Your task to perform on an android device: What is the recent news? Image 0: 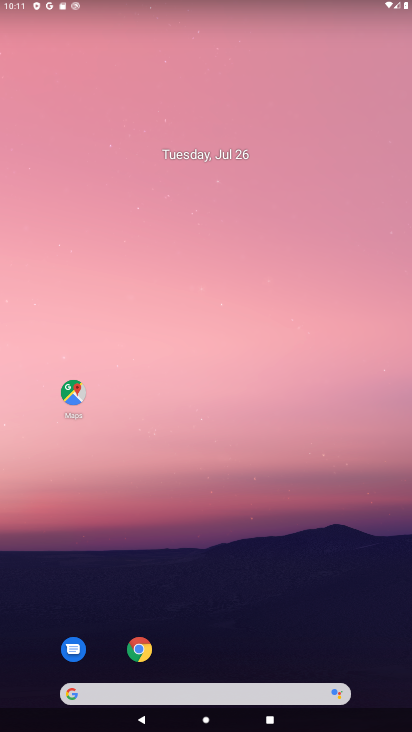
Step 0: drag from (198, 686) to (267, 24)
Your task to perform on an android device: What is the recent news? Image 1: 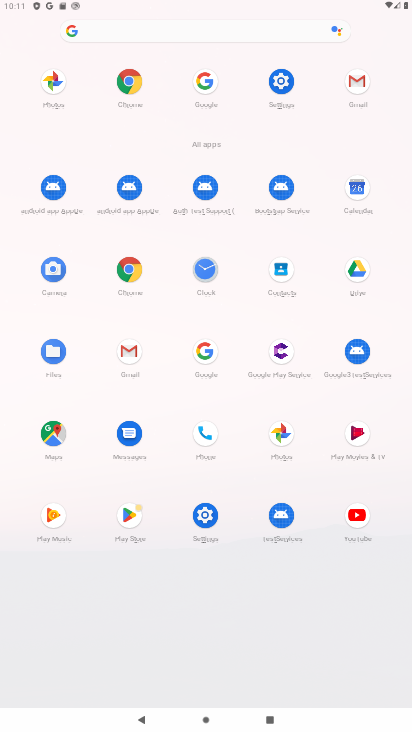
Step 1: click (202, 352)
Your task to perform on an android device: What is the recent news? Image 2: 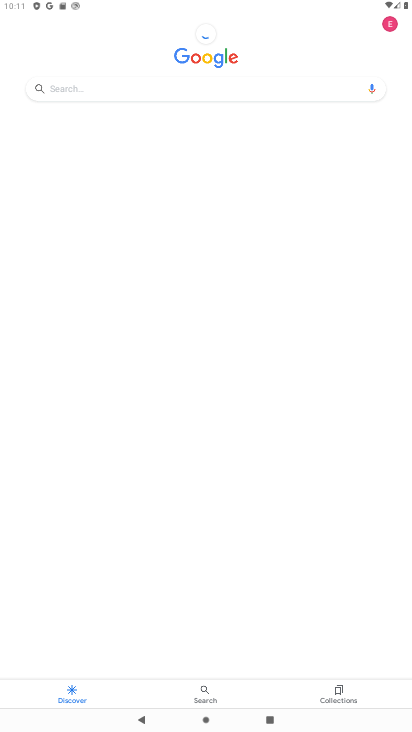
Step 2: click (53, 84)
Your task to perform on an android device: What is the recent news? Image 3: 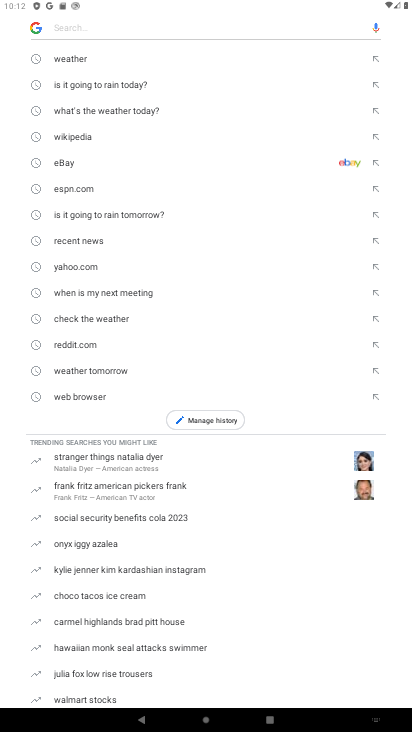
Step 3: click (88, 239)
Your task to perform on an android device: What is the recent news? Image 4: 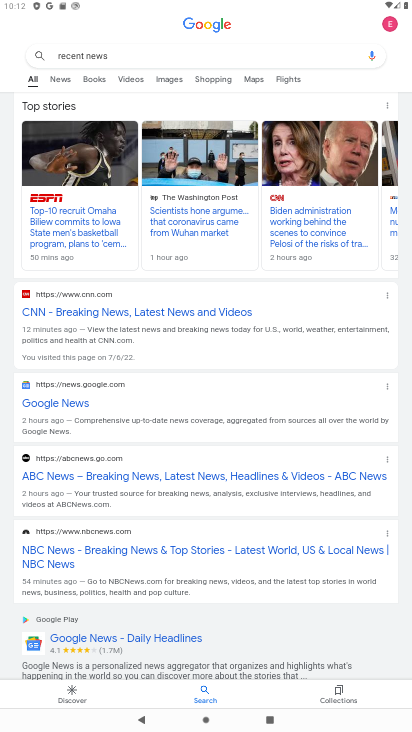
Step 4: click (117, 308)
Your task to perform on an android device: What is the recent news? Image 5: 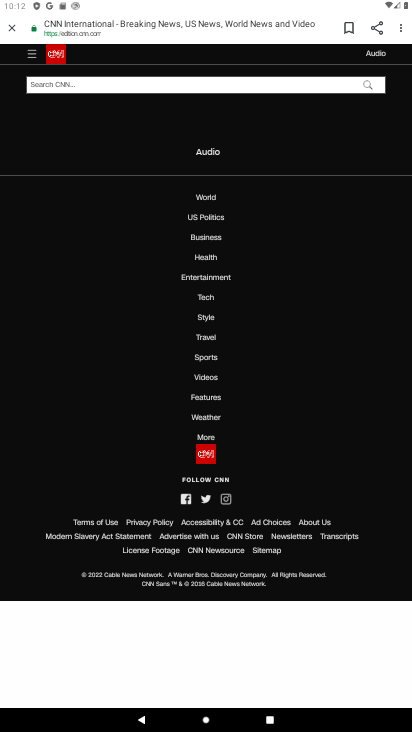
Step 5: task complete